Your task to perform on an android device: Open notification settings Image 0: 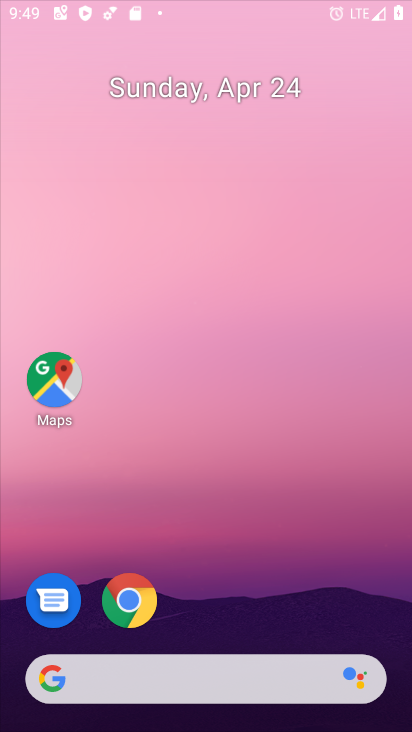
Step 0: click (369, 128)
Your task to perform on an android device: Open notification settings Image 1: 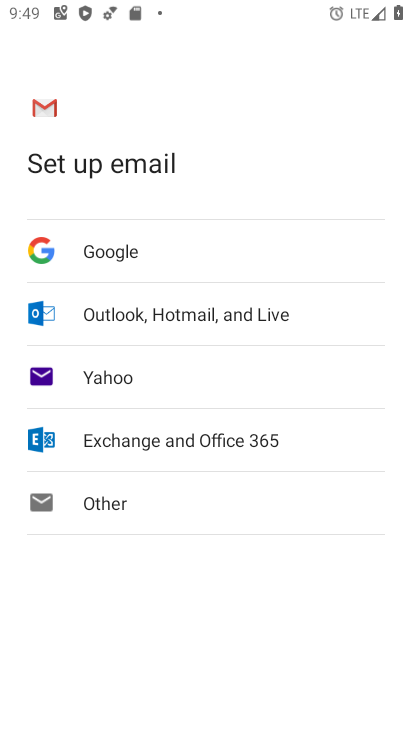
Step 1: press home button
Your task to perform on an android device: Open notification settings Image 2: 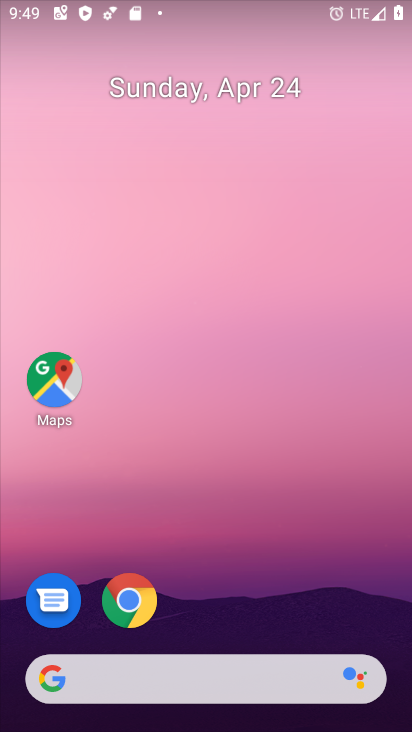
Step 2: drag from (229, 639) to (405, 5)
Your task to perform on an android device: Open notification settings Image 3: 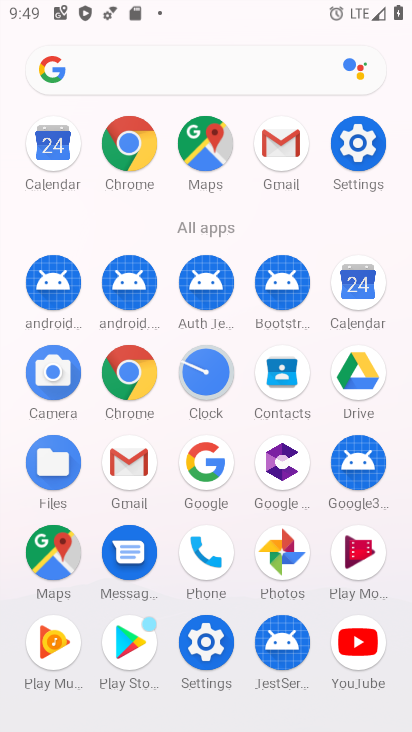
Step 3: click (358, 167)
Your task to perform on an android device: Open notification settings Image 4: 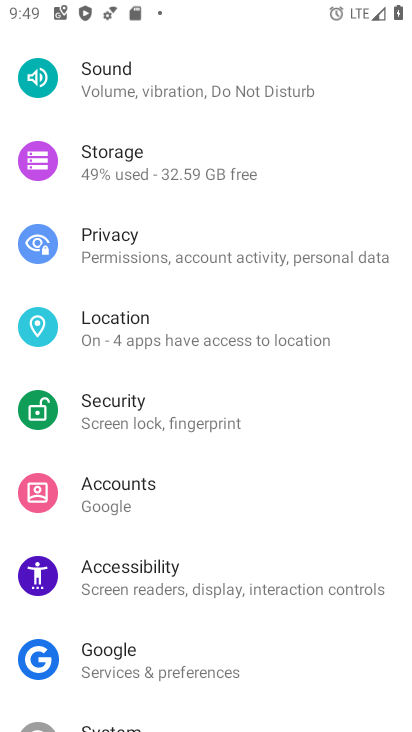
Step 4: drag from (234, 328) to (197, 671)
Your task to perform on an android device: Open notification settings Image 5: 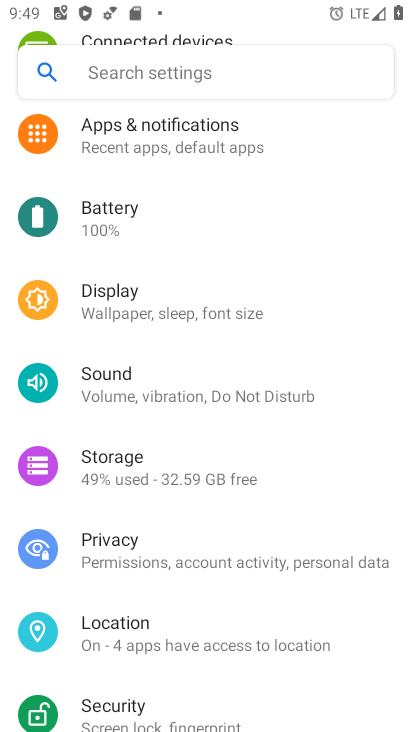
Step 5: click (176, 156)
Your task to perform on an android device: Open notification settings Image 6: 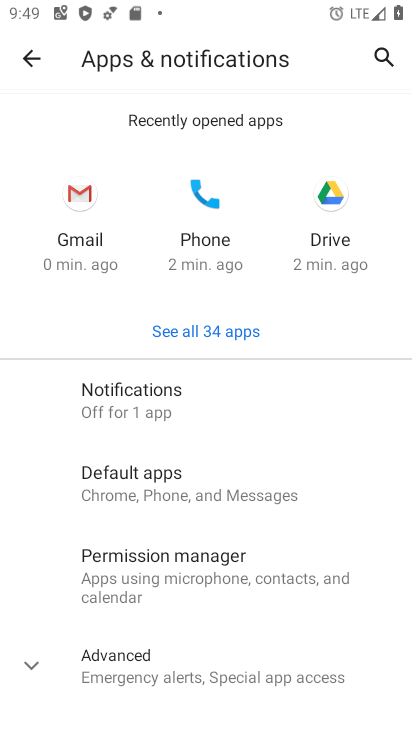
Step 6: click (146, 415)
Your task to perform on an android device: Open notification settings Image 7: 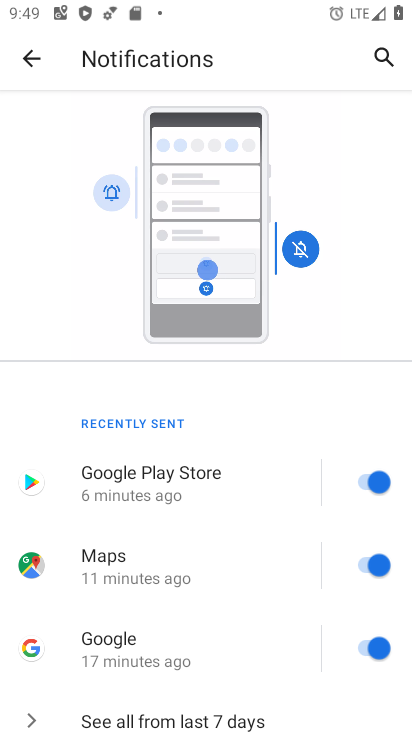
Step 7: task complete